Your task to perform on an android device: Open display settings Image 0: 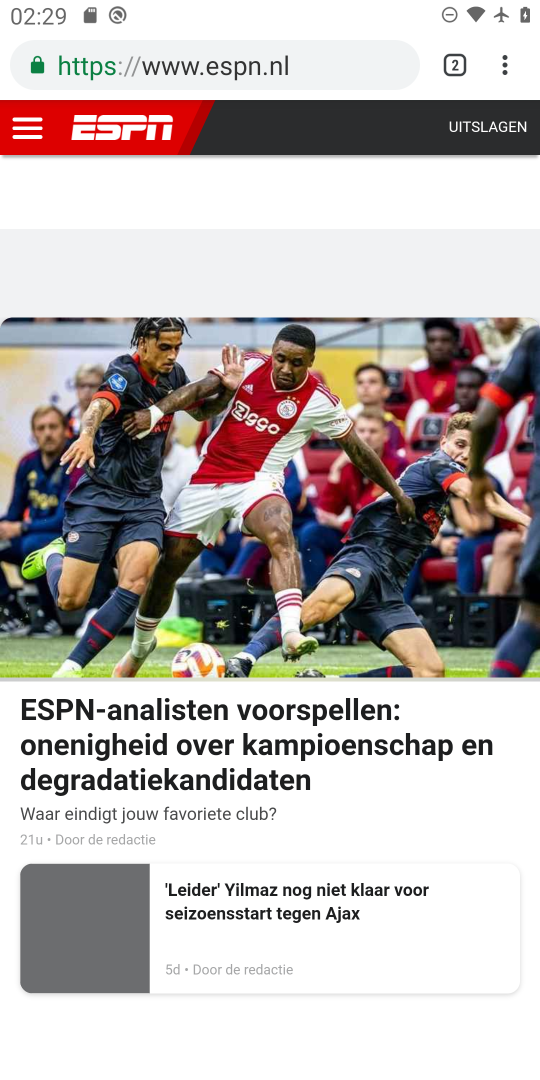
Step 0: press home button
Your task to perform on an android device: Open display settings Image 1: 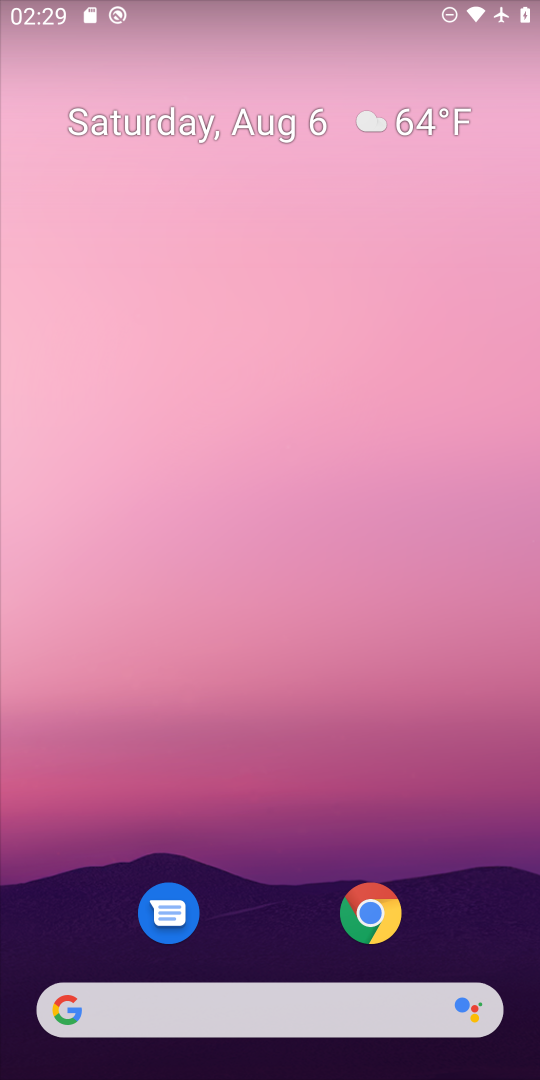
Step 1: drag from (458, 892) to (430, 231)
Your task to perform on an android device: Open display settings Image 2: 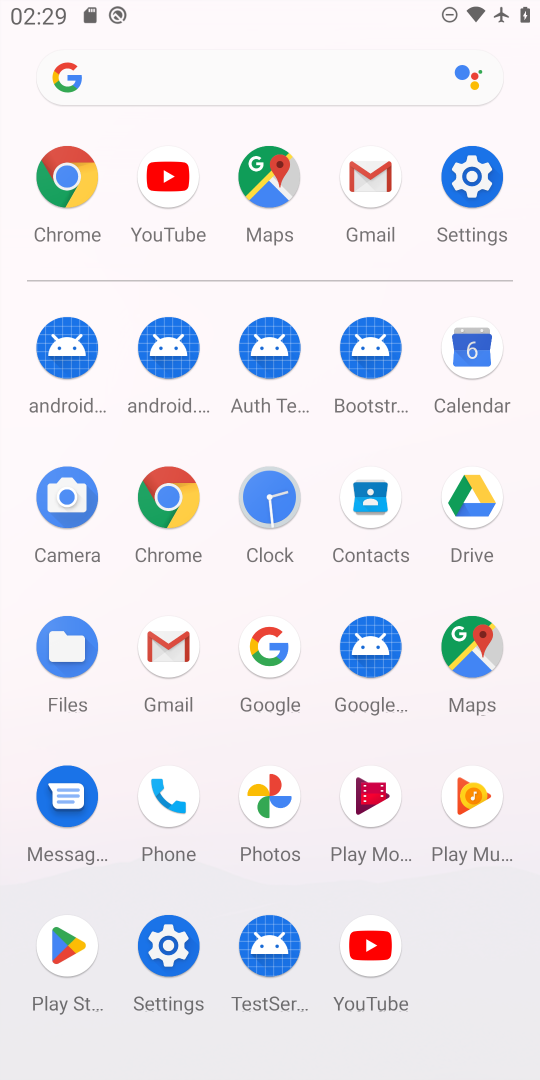
Step 2: click (470, 189)
Your task to perform on an android device: Open display settings Image 3: 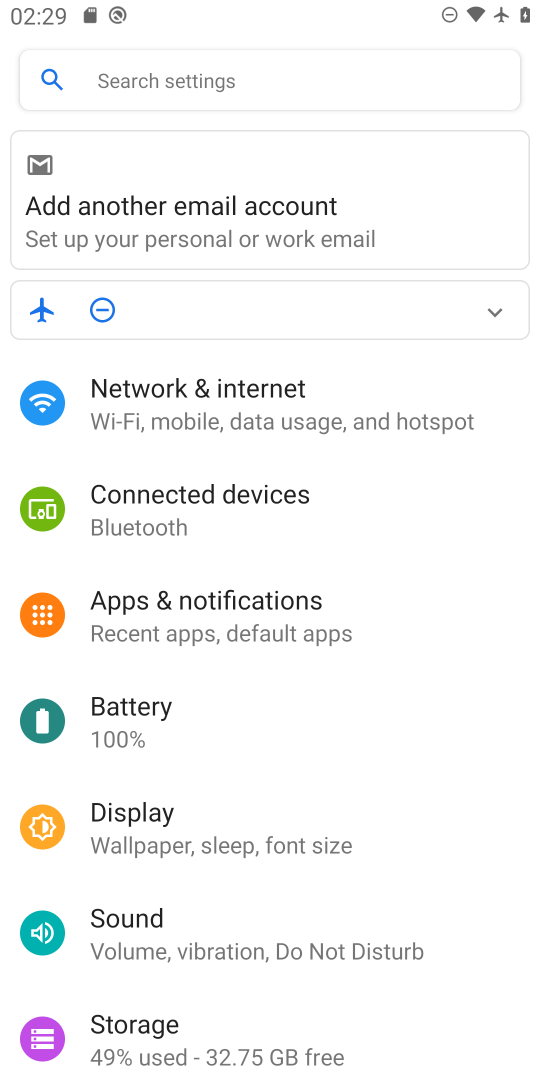
Step 3: drag from (441, 584) to (442, 518)
Your task to perform on an android device: Open display settings Image 4: 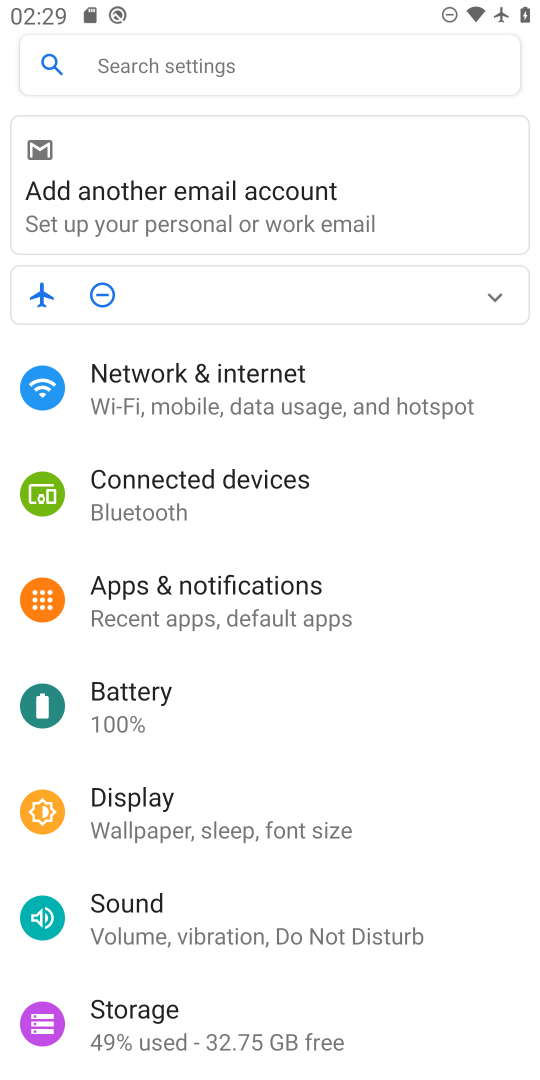
Step 4: drag from (444, 739) to (432, 423)
Your task to perform on an android device: Open display settings Image 5: 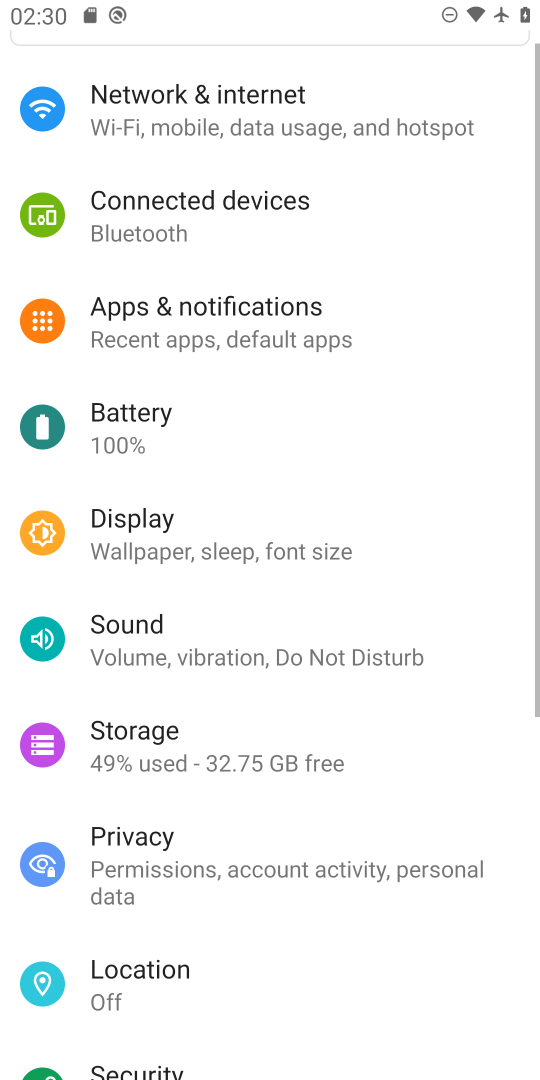
Step 5: drag from (439, 538) to (427, 332)
Your task to perform on an android device: Open display settings Image 6: 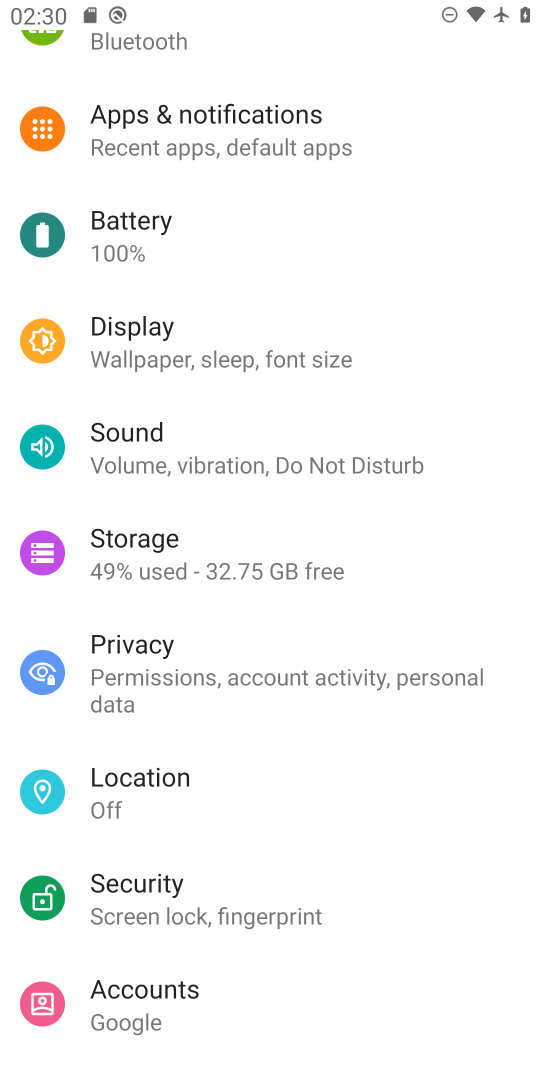
Step 6: click (237, 358)
Your task to perform on an android device: Open display settings Image 7: 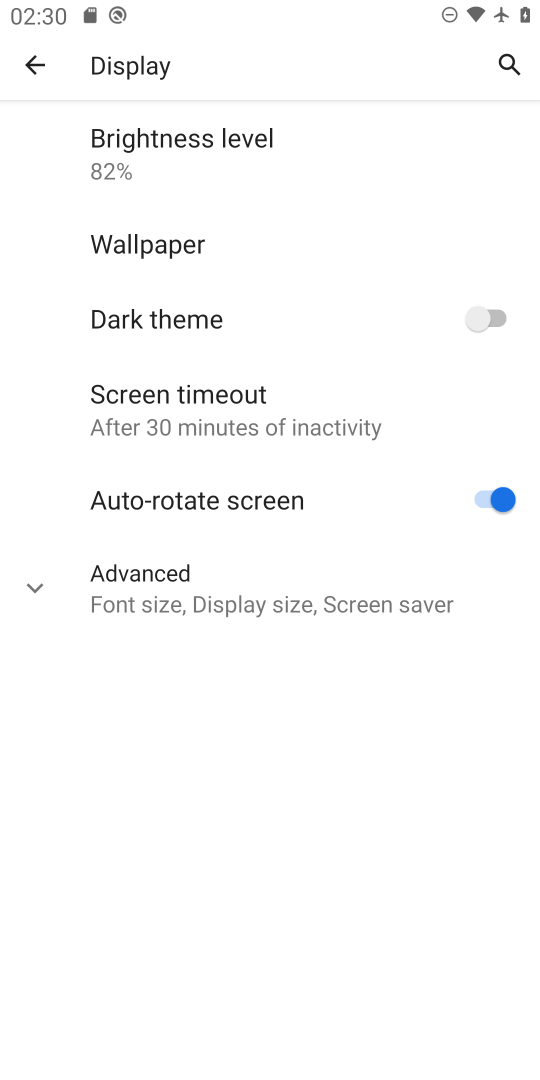
Step 7: task complete